Your task to perform on an android device: toggle priority inbox in the gmail app Image 0: 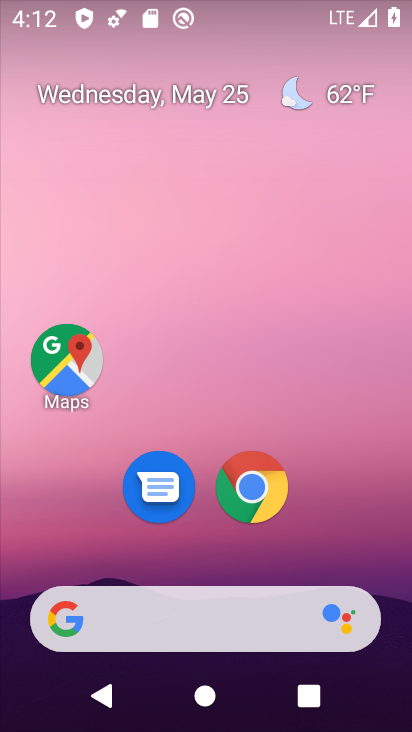
Step 0: drag from (357, 571) to (273, 39)
Your task to perform on an android device: toggle priority inbox in the gmail app Image 1: 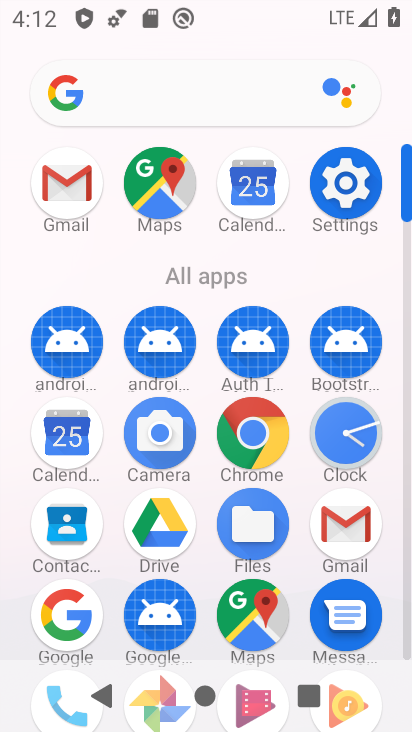
Step 1: click (349, 521)
Your task to perform on an android device: toggle priority inbox in the gmail app Image 2: 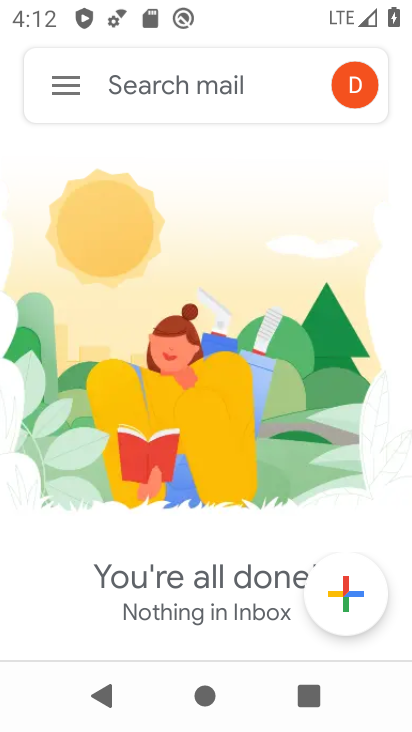
Step 2: click (75, 88)
Your task to perform on an android device: toggle priority inbox in the gmail app Image 3: 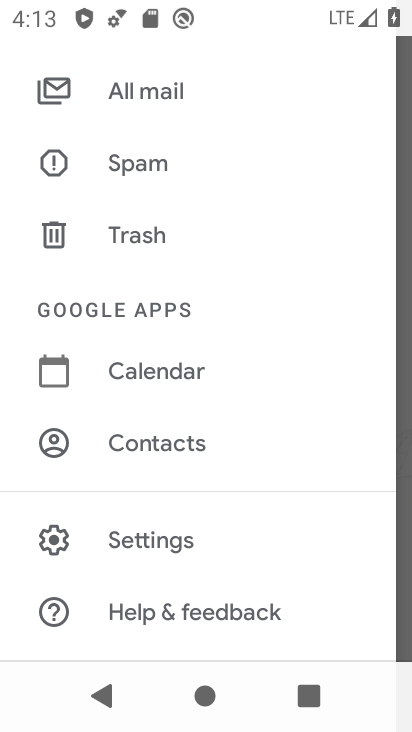
Step 3: drag from (234, 681) to (230, 194)
Your task to perform on an android device: toggle priority inbox in the gmail app Image 4: 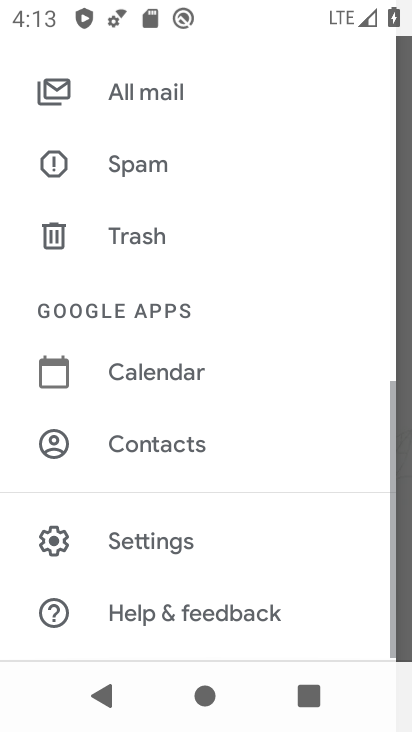
Step 4: click (167, 516)
Your task to perform on an android device: toggle priority inbox in the gmail app Image 5: 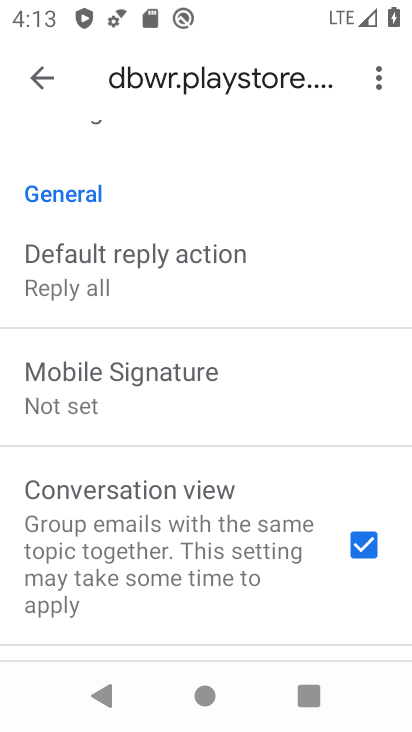
Step 5: drag from (228, 652) to (218, 124)
Your task to perform on an android device: toggle priority inbox in the gmail app Image 6: 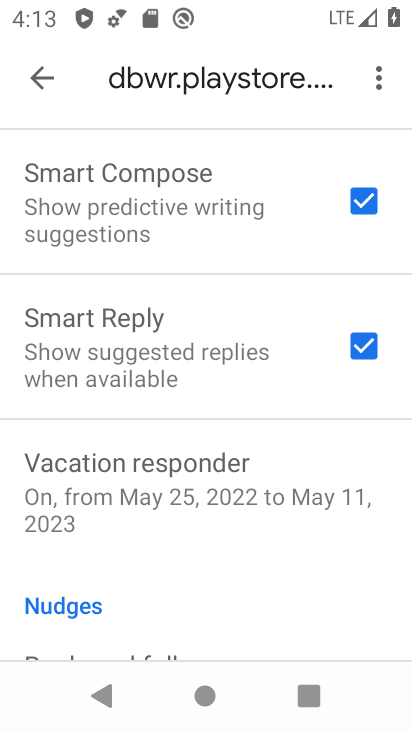
Step 6: drag from (260, 643) to (217, 232)
Your task to perform on an android device: toggle priority inbox in the gmail app Image 7: 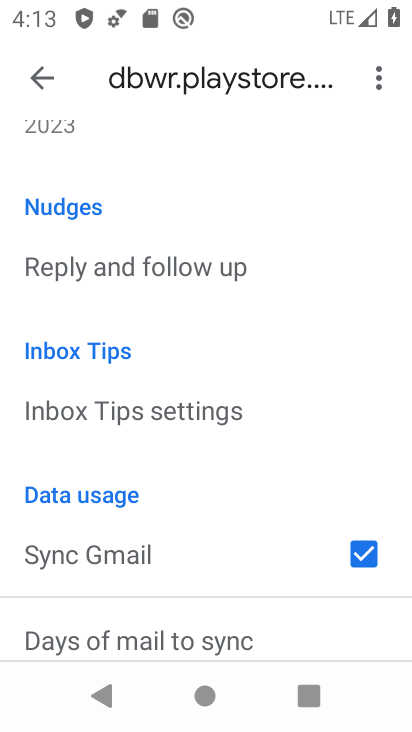
Step 7: drag from (198, 133) to (221, 731)
Your task to perform on an android device: toggle priority inbox in the gmail app Image 8: 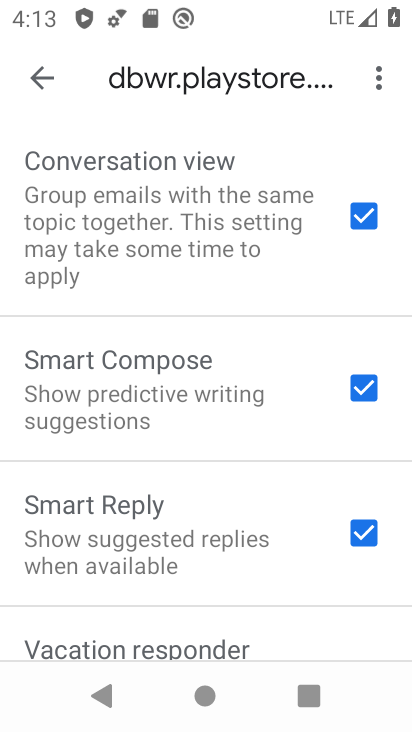
Step 8: drag from (158, 219) to (154, 729)
Your task to perform on an android device: toggle priority inbox in the gmail app Image 9: 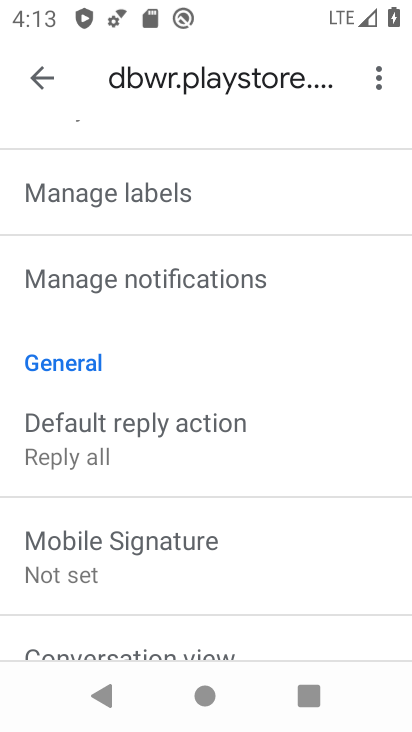
Step 9: drag from (141, 243) to (157, 730)
Your task to perform on an android device: toggle priority inbox in the gmail app Image 10: 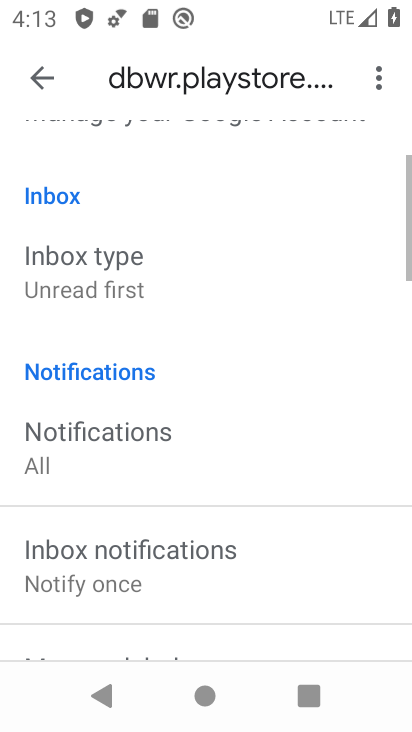
Step 10: drag from (108, 280) to (123, 708)
Your task to perform on an android device: toggle priority inbox in the gmail app Image 11: 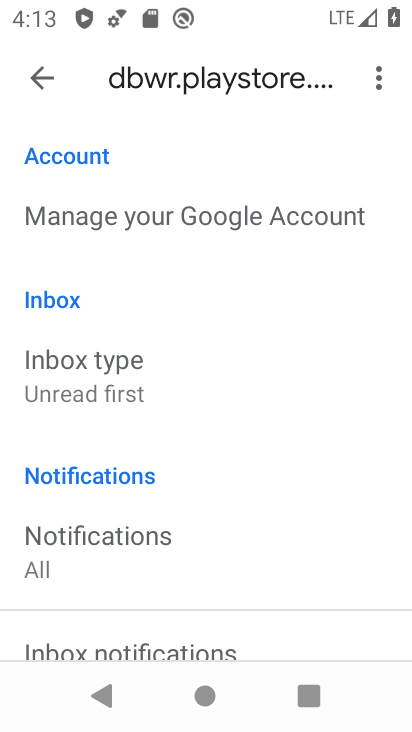
Step 11: click (102, 378)
Your task to perform on an android device: toggle priority inbox in the gmail app Image 12: 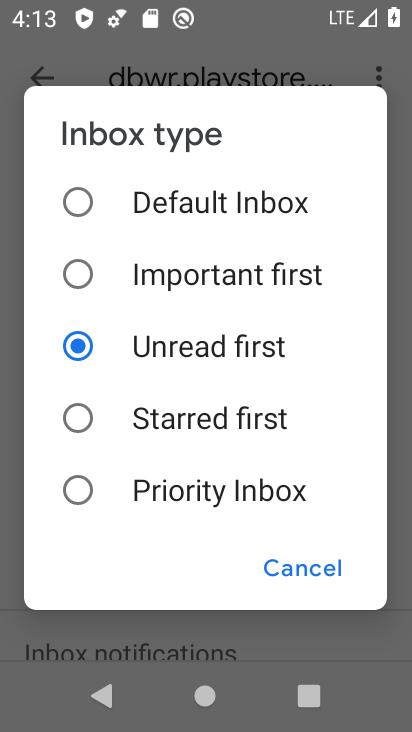
Step 12: click (65, 490)
Your task to perform on an android device: toggle priority inbox in the gmail app Image 13: 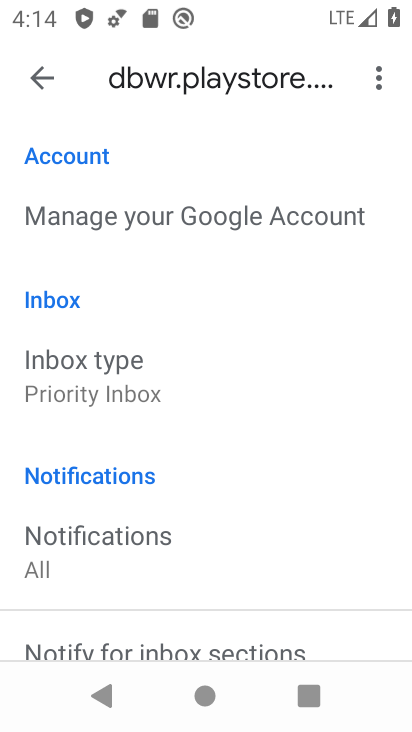
Step 13: task complete